Your task to perform on an android device: How do I get to the nearest Verizon Store? Image 0: 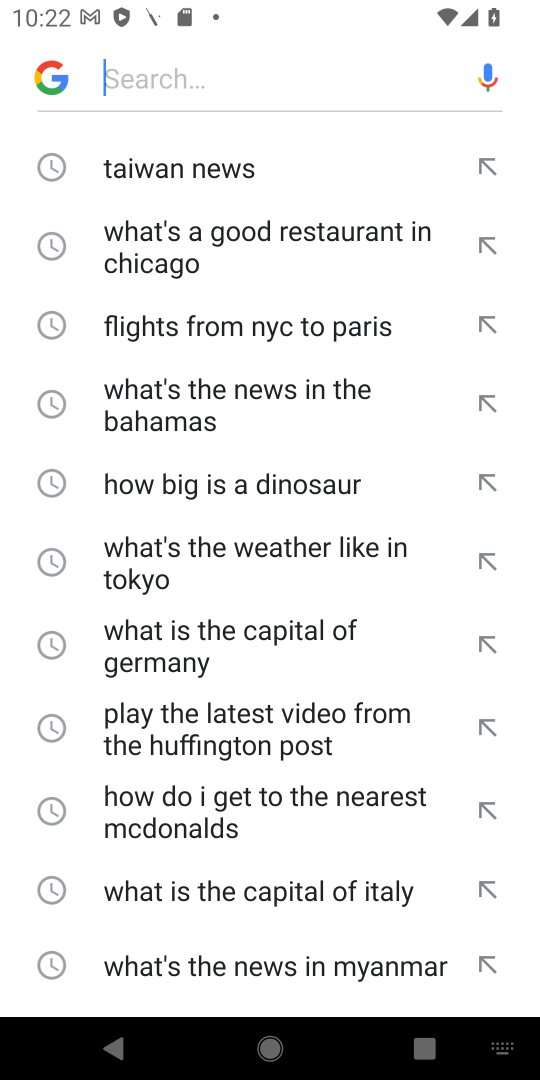
Step 0: click (132, 86)
Your task to perform on an android device: How do I get to the nearest Verizon Store? Image 1: 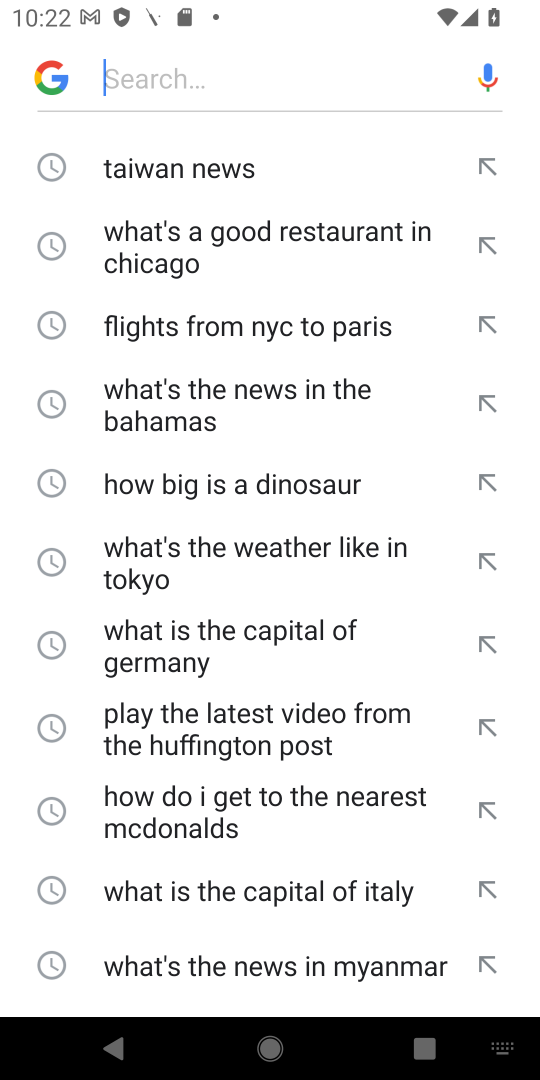
Step 1: type "nearest verizon store "
Your task to perform on an android device: How do I get to the nearest Verizon Store? Image 2: 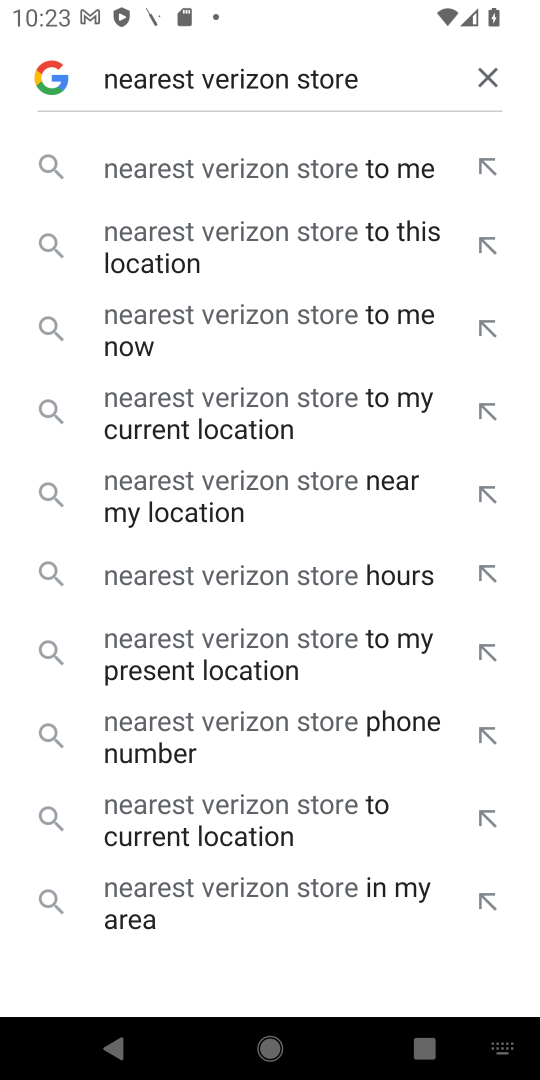
Step 2: click (253, 178)
Your task to perform on an android device: How do I get to the nearest Verizon Store? Image 3: 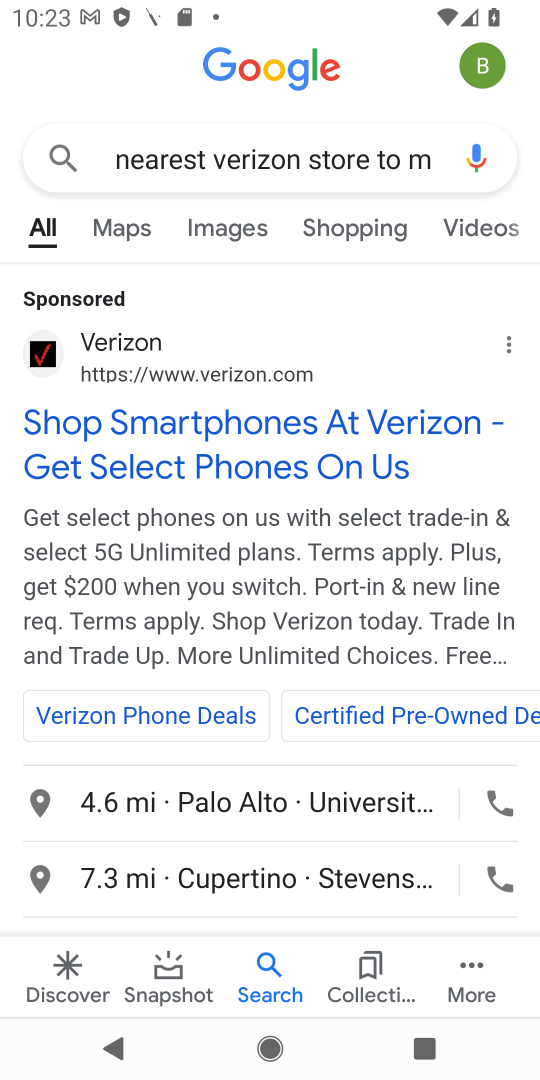
Step 3: task complete